Your task to perform on an android device: Search for Mexican restaurants on Maps Image 0: 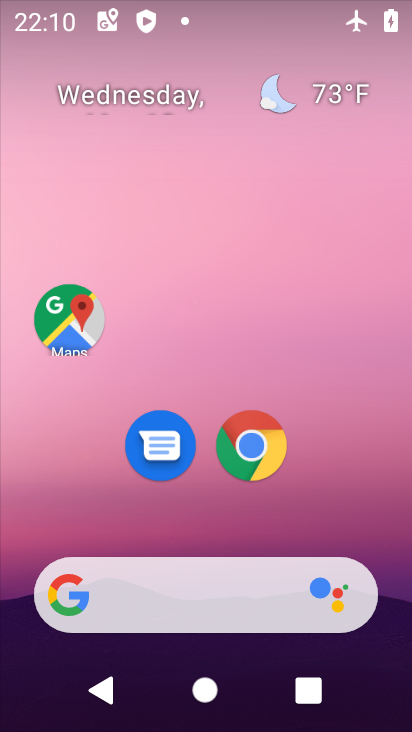
Step 0: drag from (303, 504) to (309, 208)
Your task to perform on an android device: Search for Mexican restaurants on Maps Image 1: 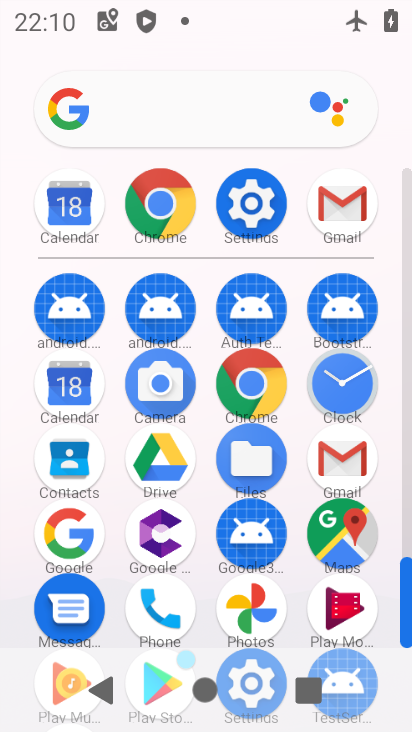
Step 1: click (239, 363)
Your task to perform on an android device: Search for Mexican restaurants on Maps Image 2: 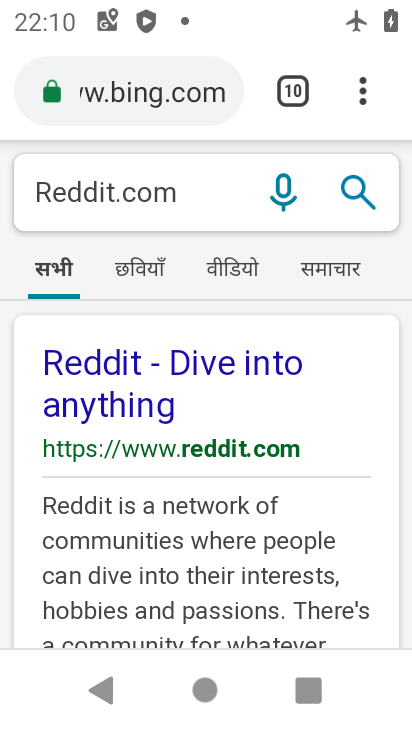
Step 2: press back button
Your task to perform on an android device: Search for Mexican restaurants on Maps Image 3: 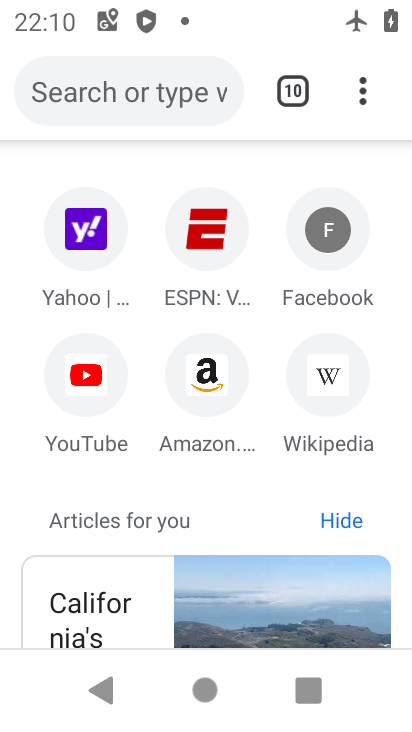
Step 3: press home button
Your task to perform on an android device: Search for Mexican restaurants on Maps Image 4: 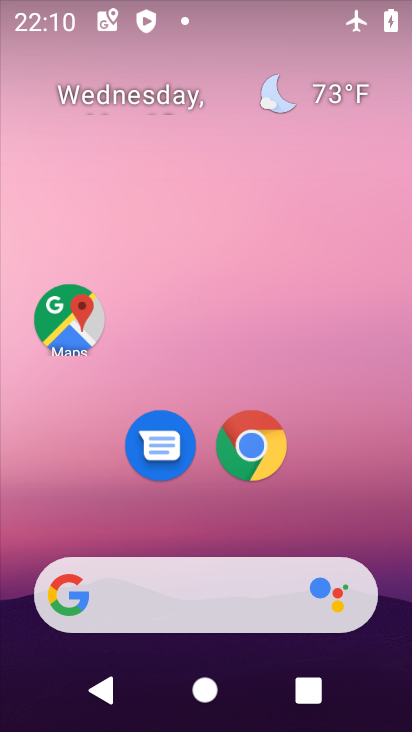
Step 4: click (78, 324)
Your task to perform on an android device: Search for Mexican restaurants on Maps Image 5: 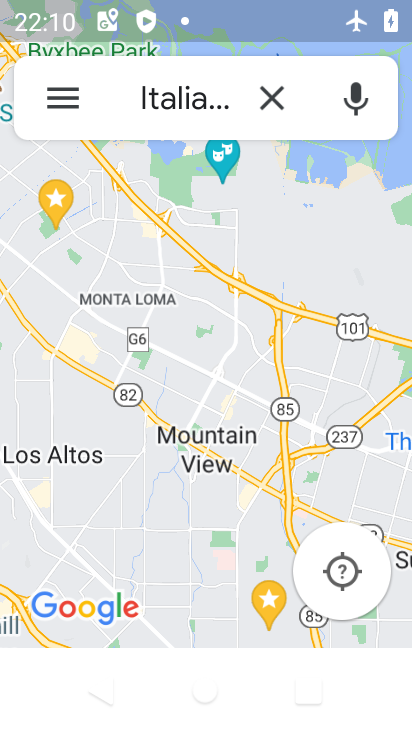
Step 5: click (260, 103)
Your task to perform on an android device: Search for Mexican restaurants on Maps Image 6: 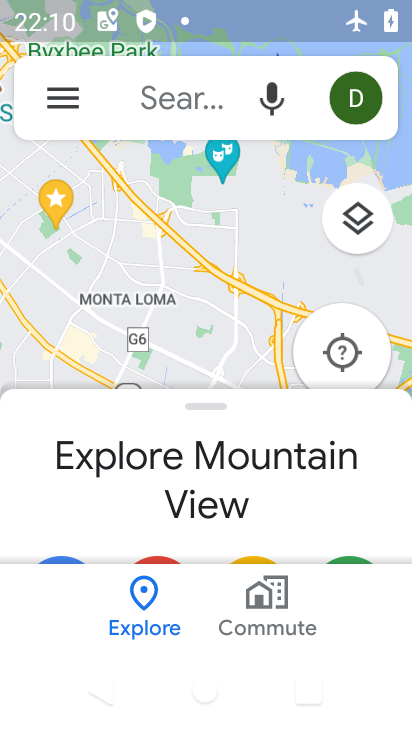
Step 6: click (155, 112)
Your task to perform on an android device: Search for Mexican restaurants on Maps Image 7: 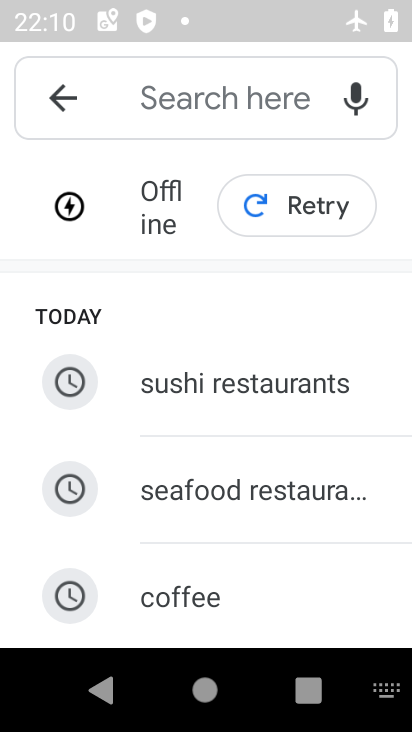
Step 7: type " Mexican restaurants "
Your task to perform on an android device: Search for Mexican restaurants on Maps Image 8: 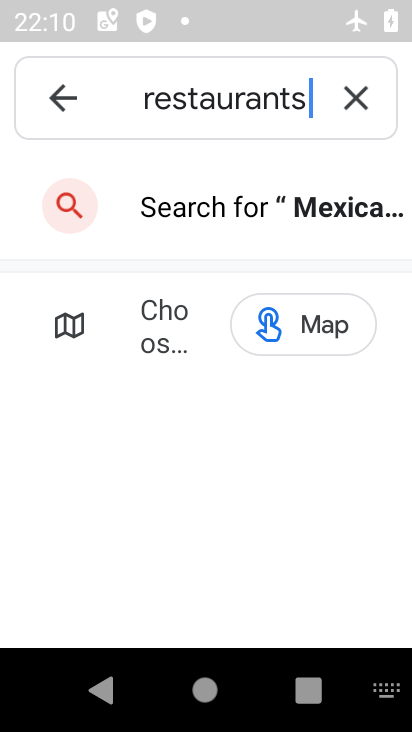
Step 8: click (308, 217)
Your task to perform on an android device: Search for Mexican restaurants on Maps Image 9: 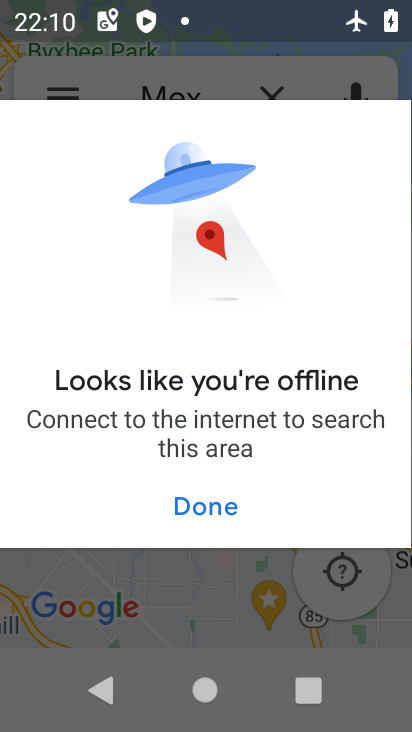
Step 9: click (219, 505)
Your task to perform on an android device: Search for Mexican restaurants on Maps Image 10: 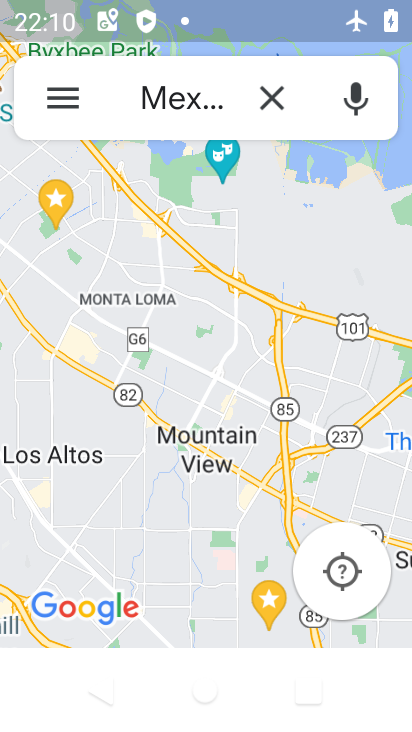
Step 10: task complete